Your task to perform on an android device: Search for the best running shoes on Nike. Image 0: 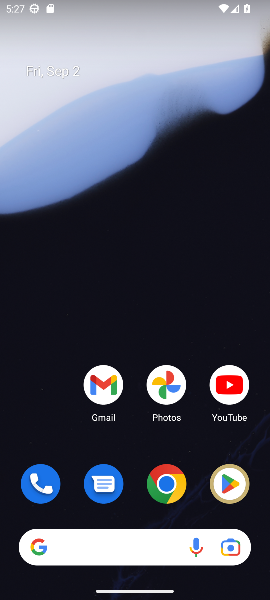
Step 0: click (174, 484)
Your task to perform on an android device: Search for the best running shoes on Nike. Image 1: 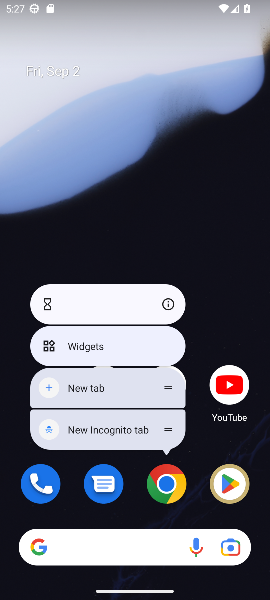
Step 1: click (172, 486)
Your task to perform on an android device: Search for the best running shoes on Nike. Image 2: 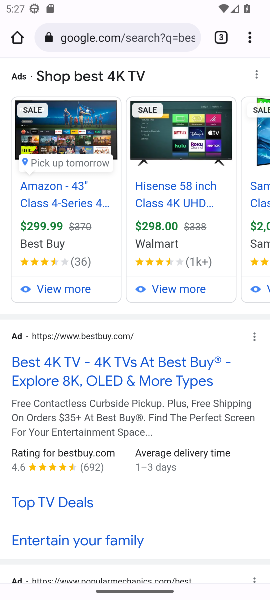
Step 2: click (152, 38)
Your task to perform on an android device: Search for the best running shoes on Nike. Image 3: 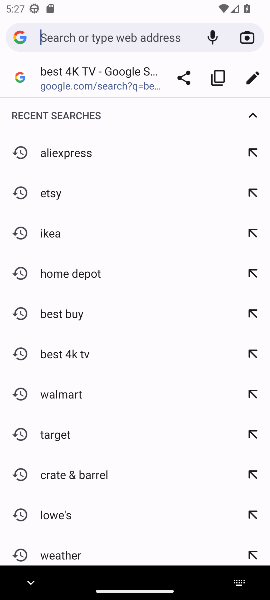
Step 3: press enter
Your task to perform on an android device: Search for the best running shoes on Nike. Image 4: 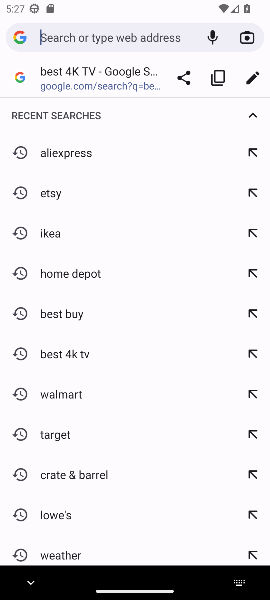
Step 4: type "Nike"
Your task to perform on an android device: Search for the best running shoes on Nike. Image 5: 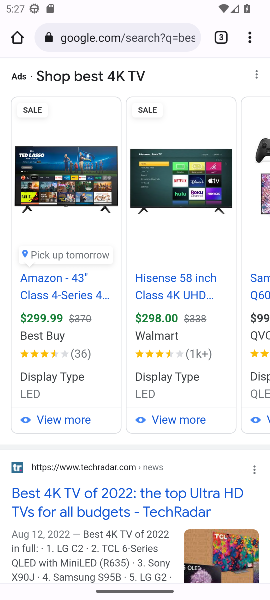
Step 5: click (93, 35)
Your task to perform on an android device: Search for the best running shoes on Nike. Image 6: 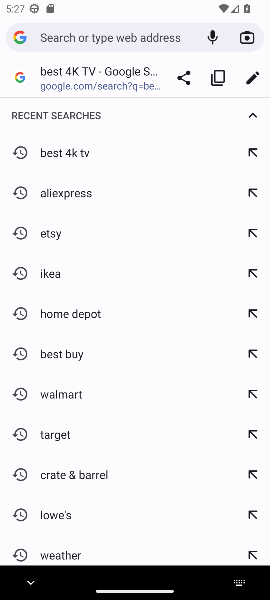
Step 6: type "Nike"
Your task to perform on an android device: Search for the best running shoes on Nike. Image 7: 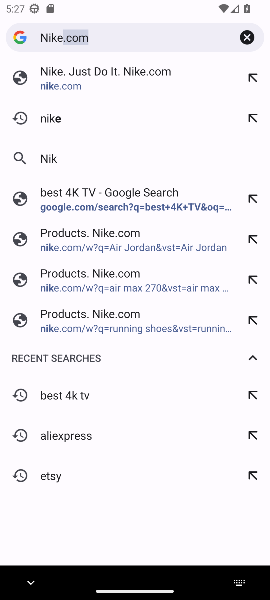
Step 7: press enter
Your task to perform on an android device: Search for the best running shoes on Nike. Image 8: 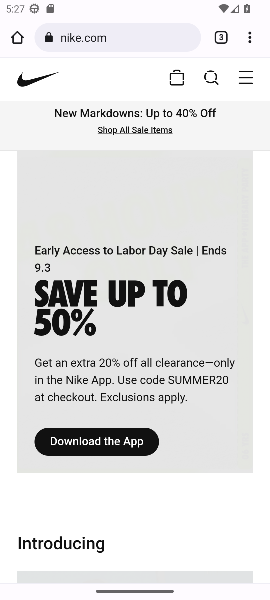
Step 8: click (212, 77)
Your task to perform on an android device: Search for the best running shoes on Nike. Image 9: 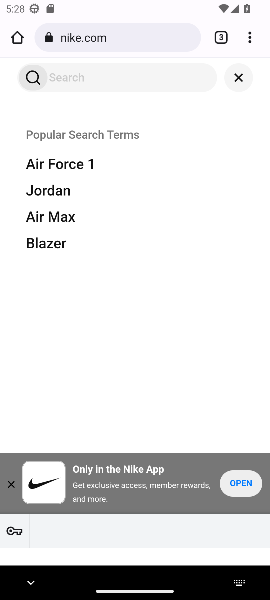
Step 9: type "running shoes"
Your task to perform on an android device: Search for the best running shoes on Nike. Image 10: 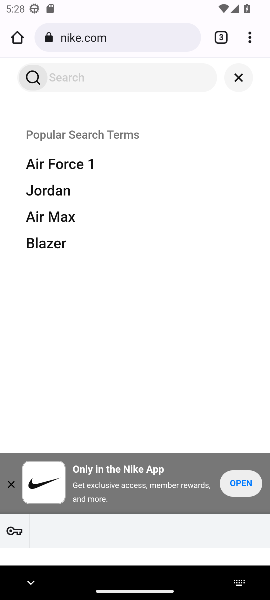
Step 10: press enter
Your task to perform on an android device: Search for the best running shoes on Nike. Image 11: 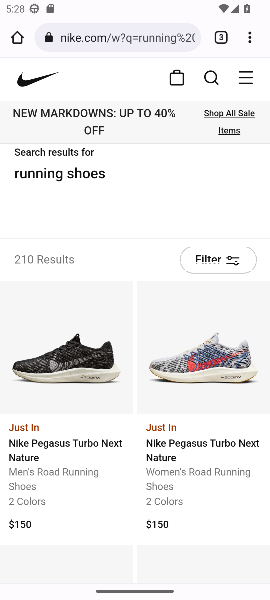
Step 11: task complete